Your task to perform on an android device: change the clock display to digital Image 0: 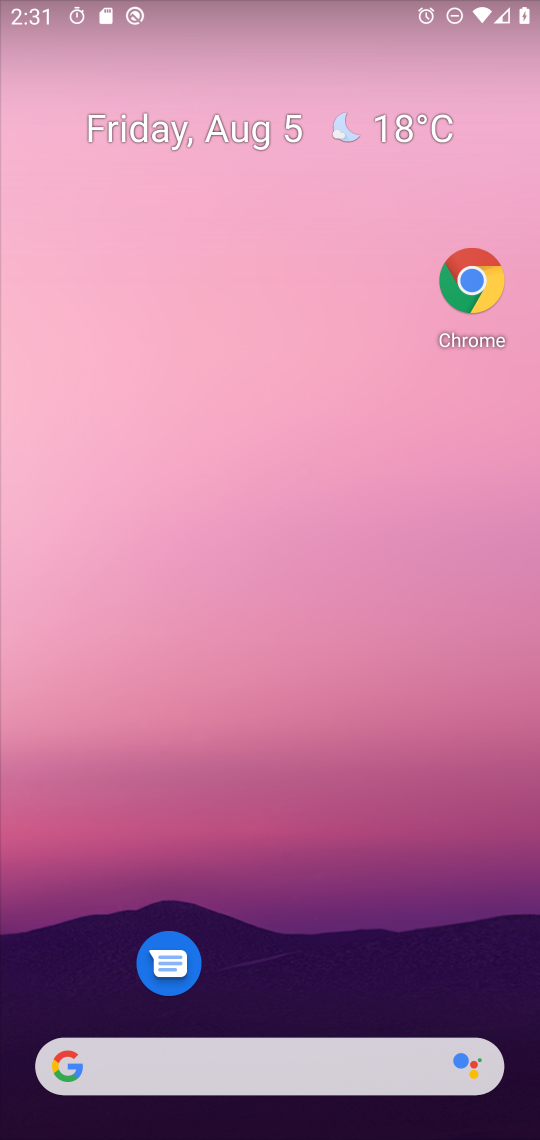
Step 0: drag from (259, 972) to (37, 14)
Your task to perform on an android device: change the clock display to digital Image 1: 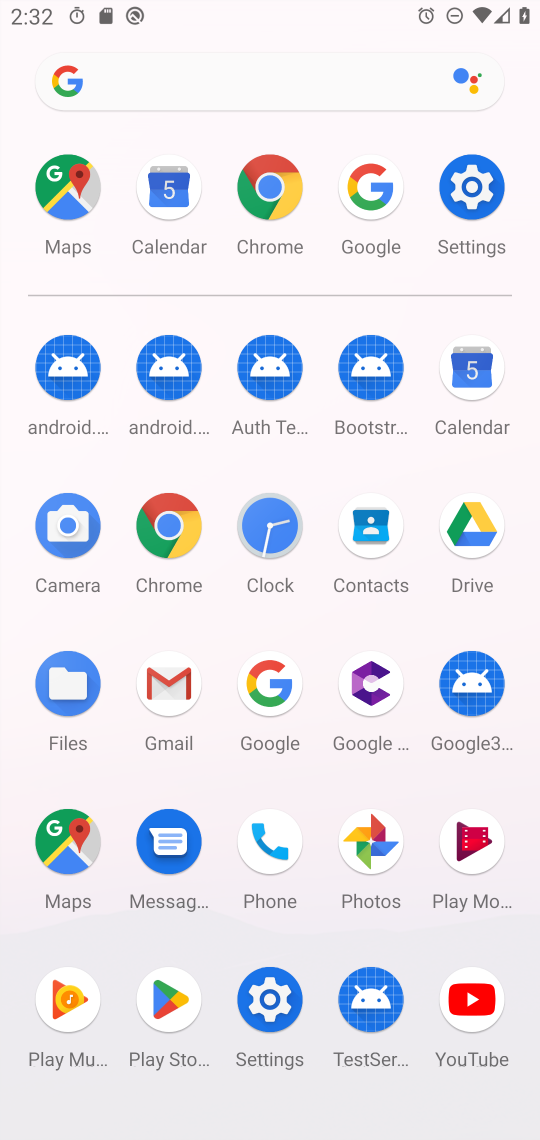
Step 1: click (276, 508)
Your task to perform on an android device: change the clock display to digital Image 2: 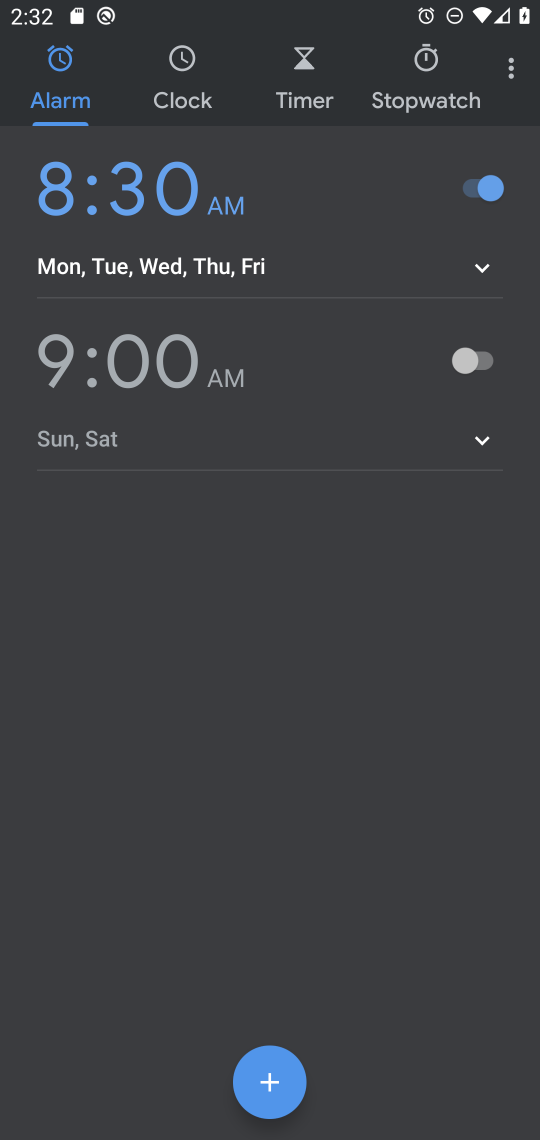
Step 2: click (524, 86)
Your task to perform on an android device: change the clock display to digital Image 3: 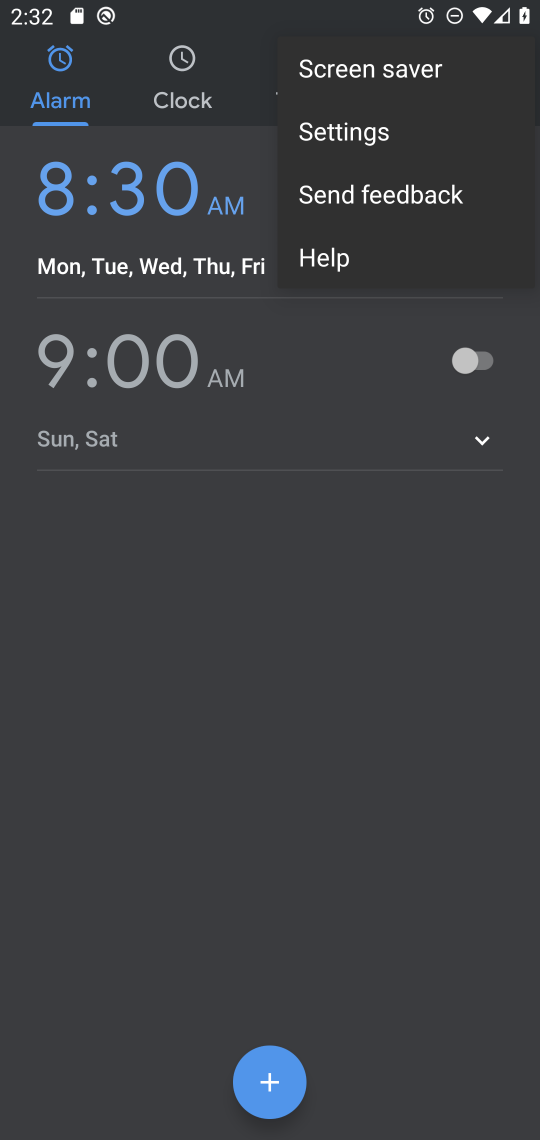
Step 3: click (326, 140)
Your task to perform on an android device: change the clock display to digital Image 4: 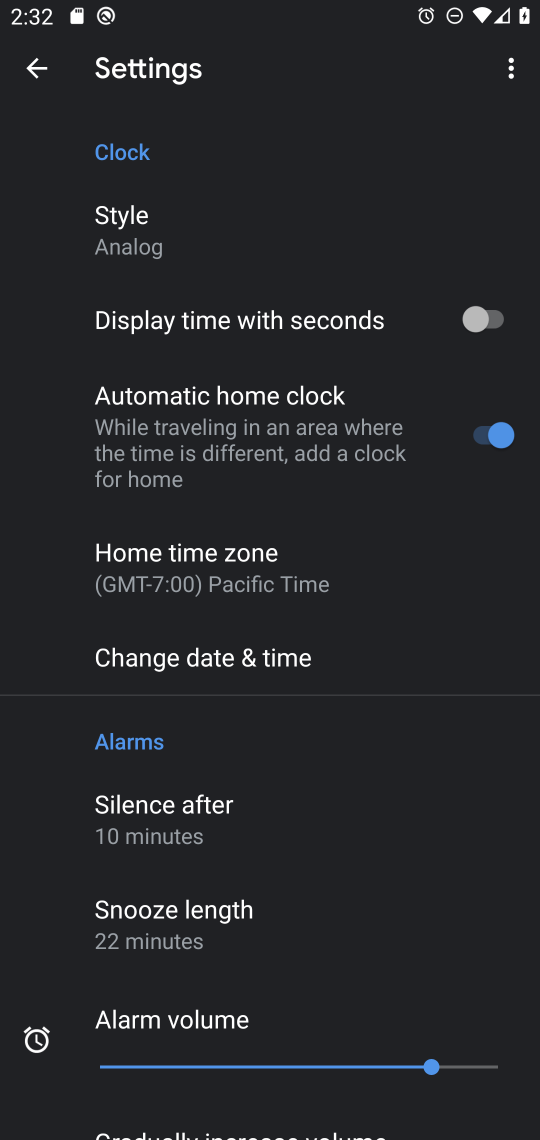
Step 4: click (152, 233)
Your task to perform on an android device: change the clock display to digital Image 5: 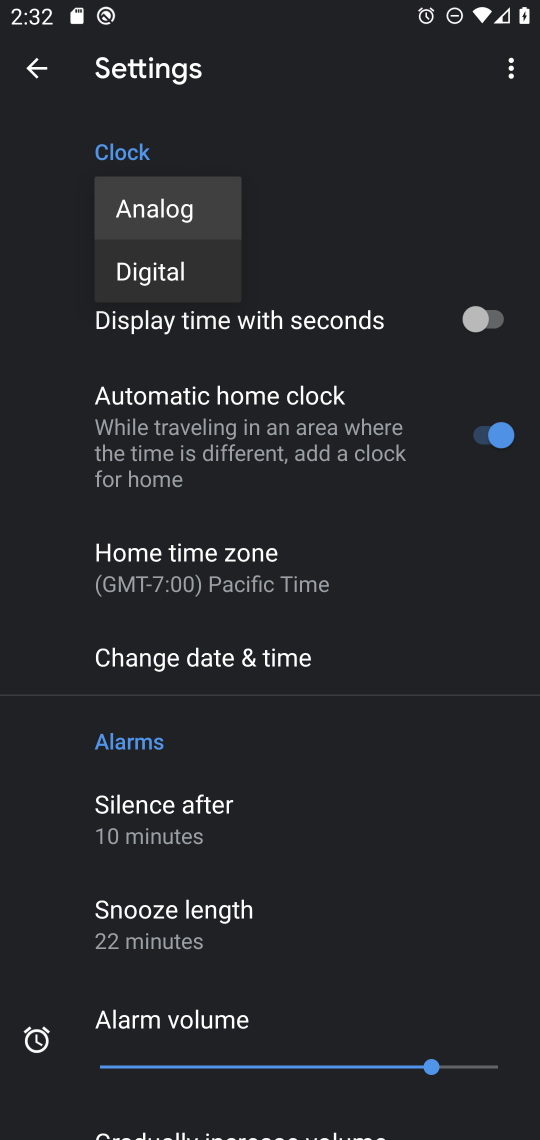
Step 5: click (187, 284)
Your task to perform on an android device: change the clock display to digital Image 6: 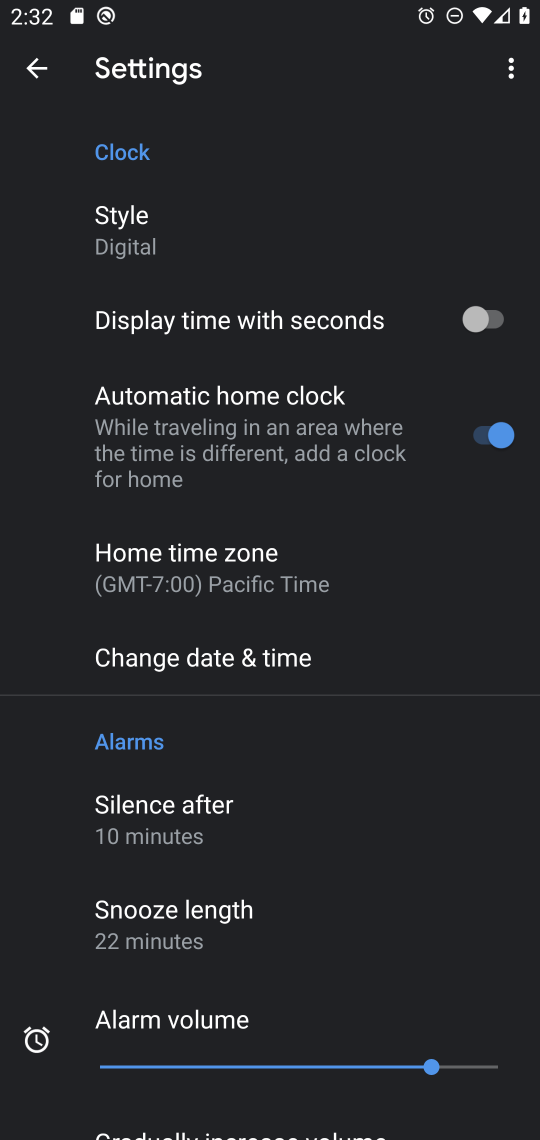
Step 6: task complete